Your task to perform on an android device: uninstall "Speedtest by Ookla" Image 0: 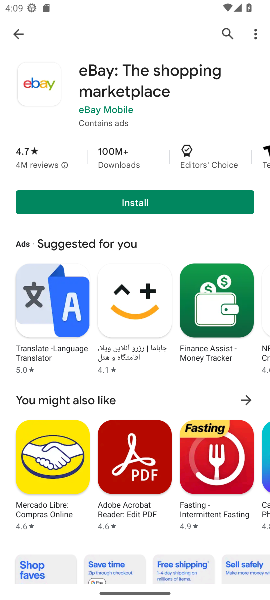
Step 0: press home button
Your task to perform on an android device: uninstall "Speedtest by Ookla" Image 1: 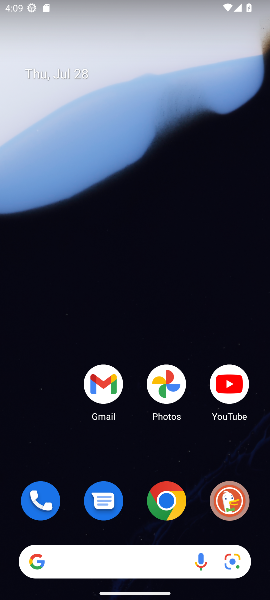
Step 1: drag from (155, 446) to (166, 131)
Your task to perform on an android device: uninstall "Speedtest by Ookla" Image 2: 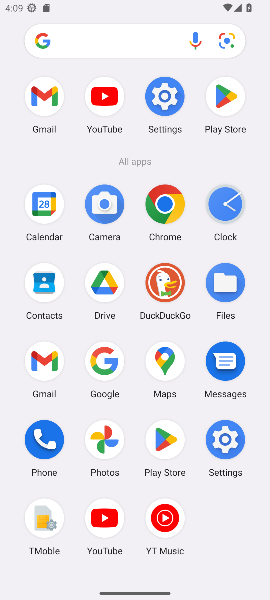
Step 2: click (227, 95)
Your task to perform on an android device: uninstall "Speedtest by Ookla" Image 3: 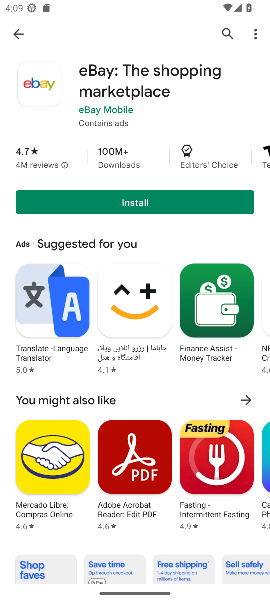
Step 3: click (228, 35)
Your task to perform on an android device: uninstall "Speedtest by Ookla" Image 4: 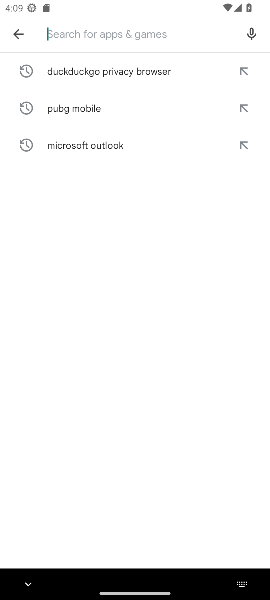
Step 4: click (157, 34)
Your task to perform on an android device: uninstall "Speedtest by Ookla" Image 5: 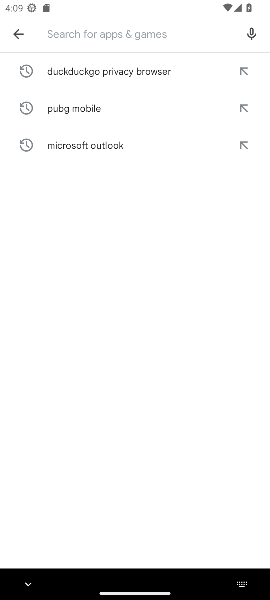
Step 5: type "Speedtest by Ookla"
Your task to perform on an android device: uninstall "Speedtest by Ookla" Image 6: 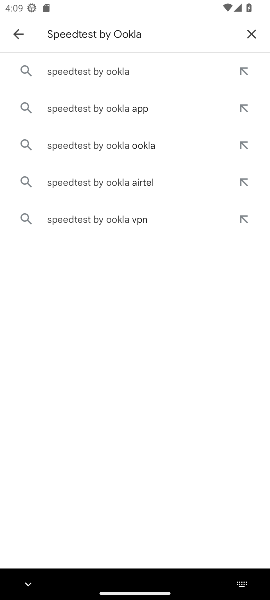
Step 6: click (102, 74)
Your task to perform on an android device: uninstall "Speedtest by Ookla" Image 7: 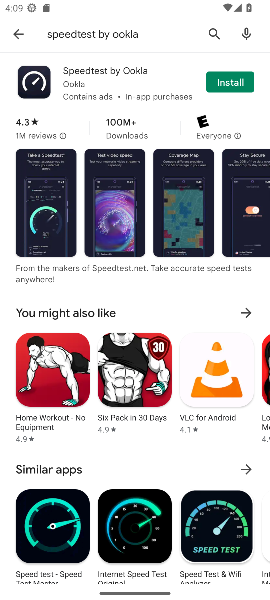
Step 7: task complete